Your task to perform on an android device: open sync settings in chrome Image 0: 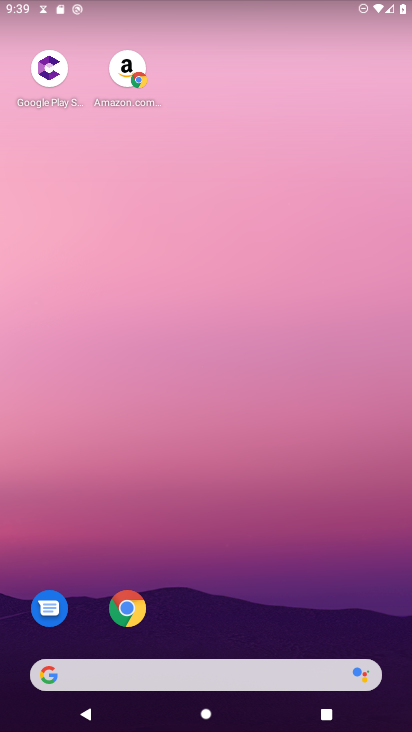
Step 0: click (128, 609)
Your task to perform on an android device: open sync settings in chrome Image 1: 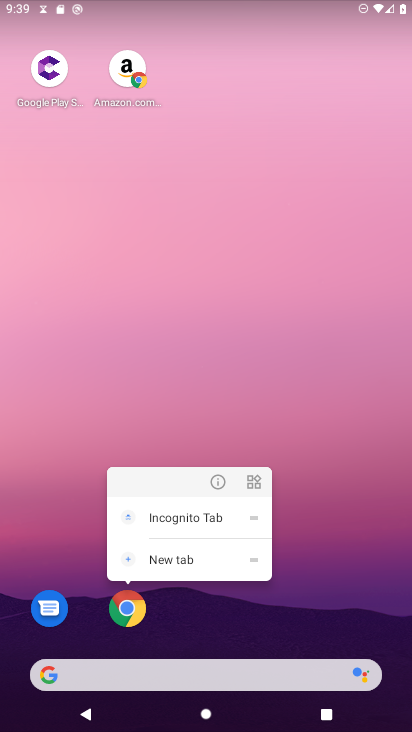
Step 1: click (127, 615)
Your task to perform on an android device: open sync settings in chrome Image 2: 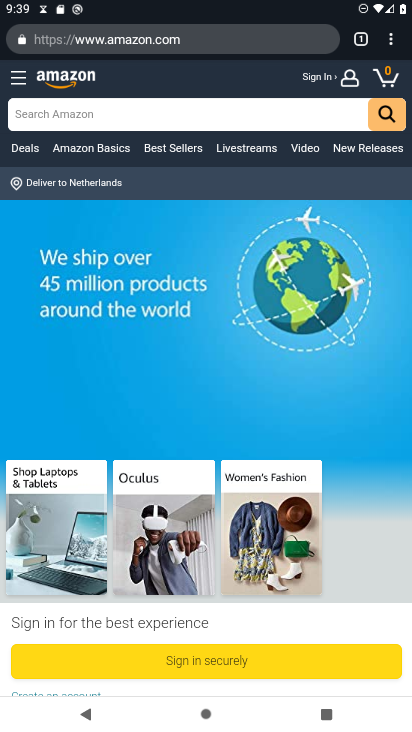
Step 2: click (391, 42)
Your task to perform on an android device: open sync settings in chrome Image 3: 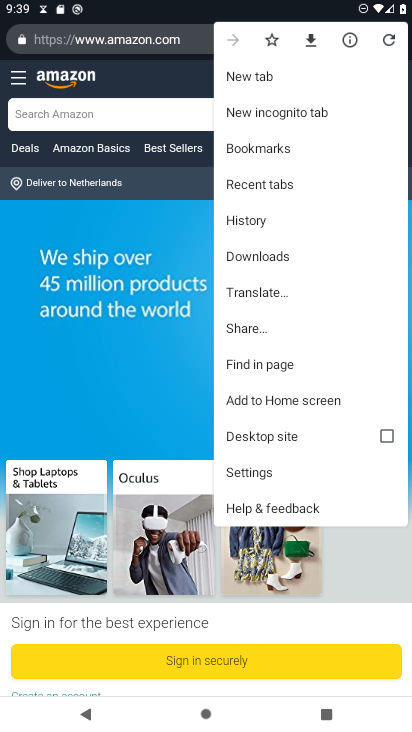
Step 3: click (259, 474)
Your task to perform on an android device: open sync settings in chrome Image 4: 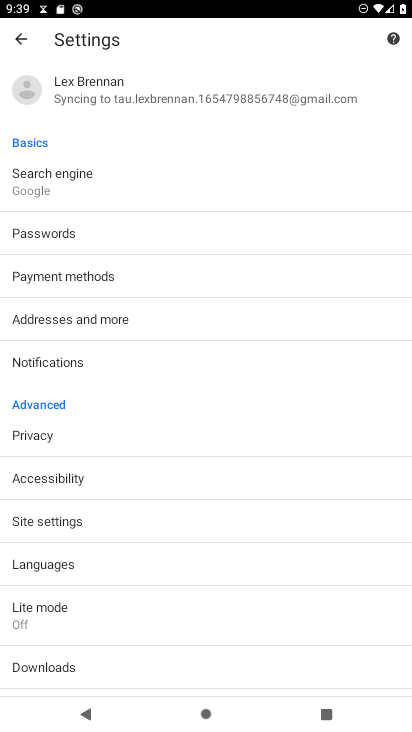
Step 4: click (40, 523)
Your task to perform on an android device: open sync settings in chrome Image 5: 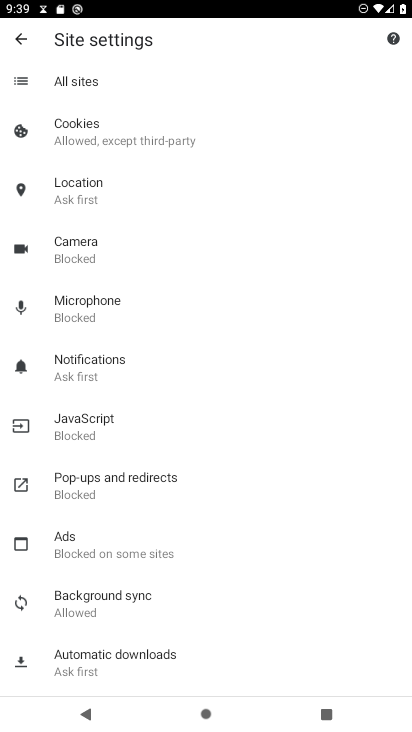
Step 5: drag from (111, 586) to (160, 499)
Your task to perform on an android device: open sync settings in chrome Image 6: 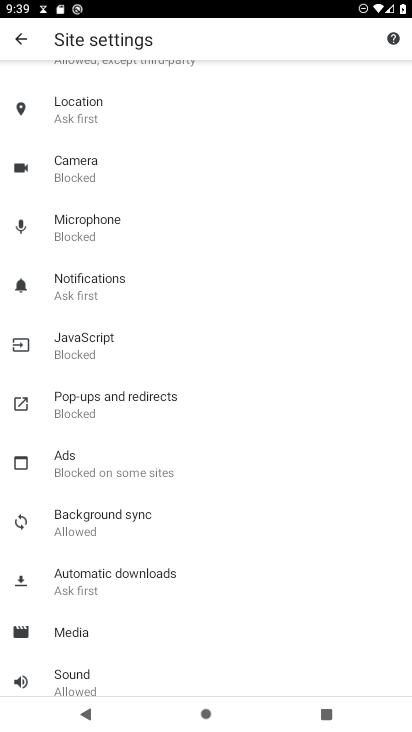
Step 6: drag from (118, 617) to (190, 515)
Your task to perform on an android device: open sync settings in chrome Image 7: 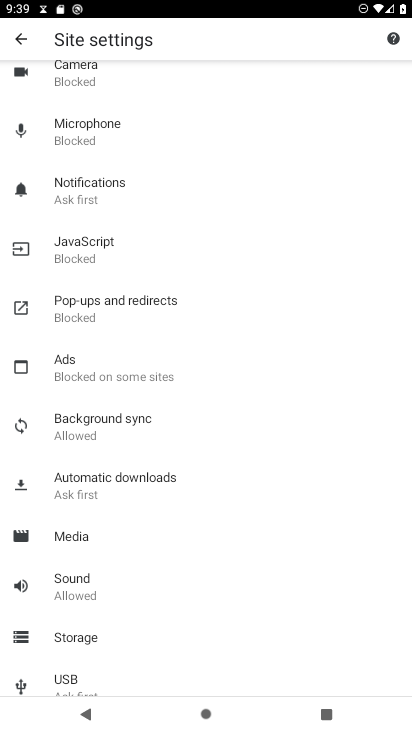
Step 7: drag from (123, 622) to (199, 525)
Your task to perform on an android device: open sync settings in chrome Image 8: 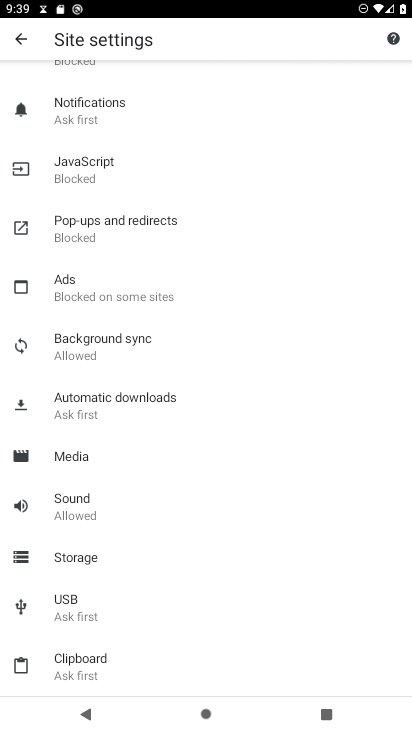
Step 8: drag from (133, 610) to (220, 498)
Your task to perform on an android device: open sync settings in chrome Image 9: 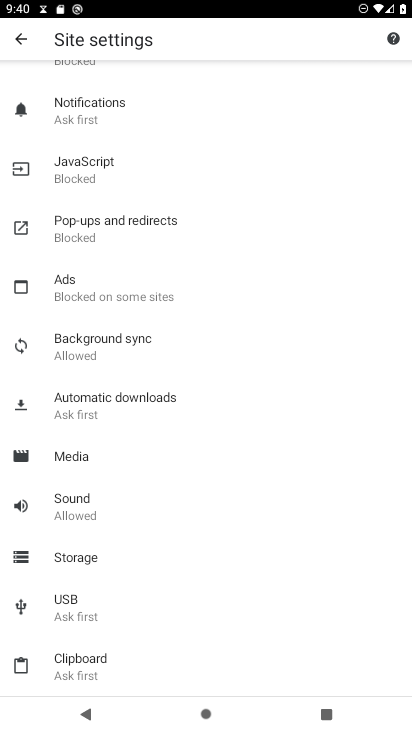
Step 9: click (103, 342)
Your task to perform on an android device: open sync settings in chrome Image 10: 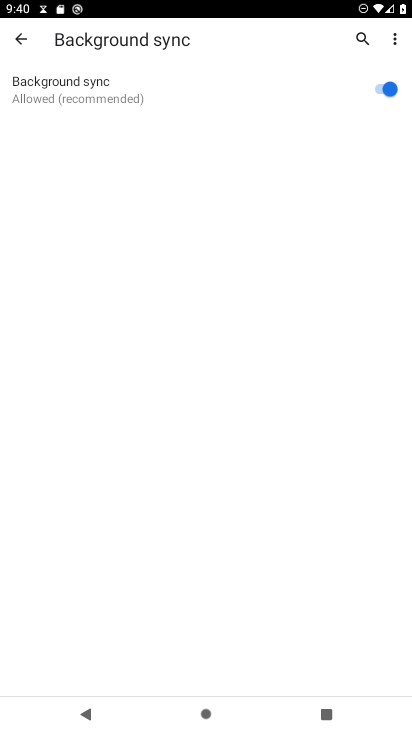
Step 10: task complete